Your task to perform on an android device: open a new tab in the chrome app Image 0: 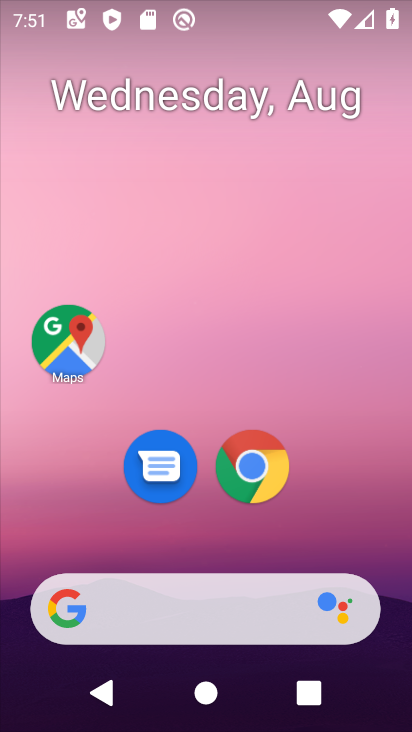
Step 0: drag from (337, 501) to (335, 66)
Your task to perform on an android device: open a new tab in the chrome app Image 1: 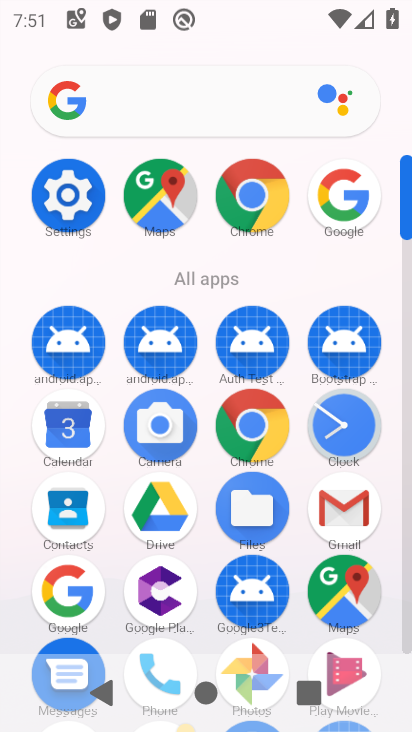
Step 1: click (249, 419)
Your task to perform on an android device: open a new tab in the chrome app Image 2: 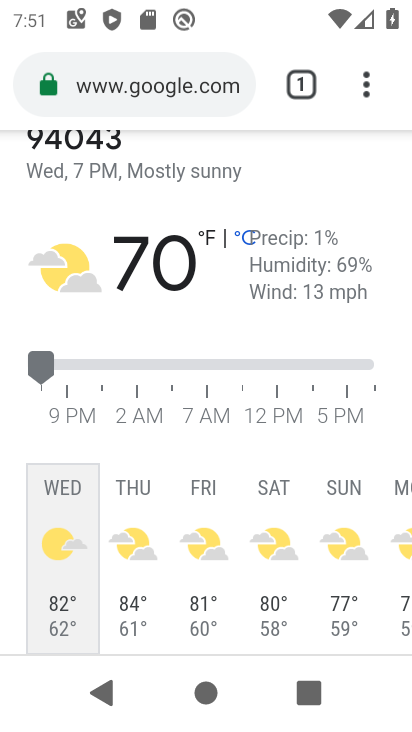
Step 2: task complete